Your task to perform on an android device: Open sound settings Image 0: 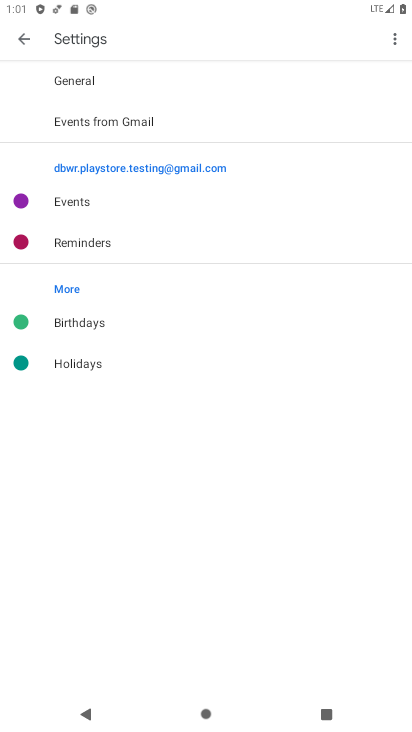
Step 0: press home button
Your task to perform on an android device: Open sound settings Image 1: 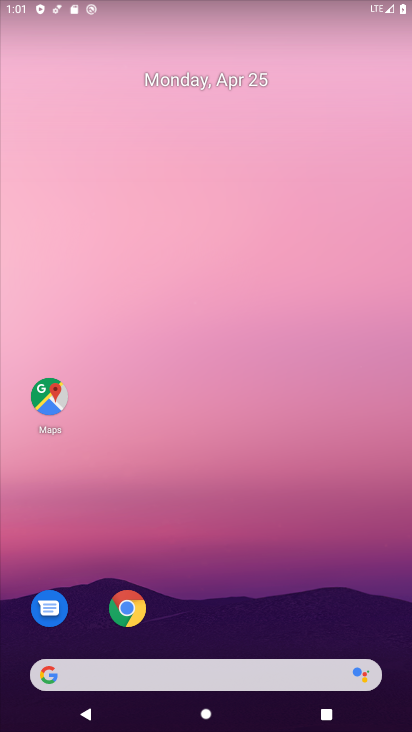
Step 1: drag from (266, 580) to (339, 126)
Your task to perform on an android device: Open sound settings Image 2: 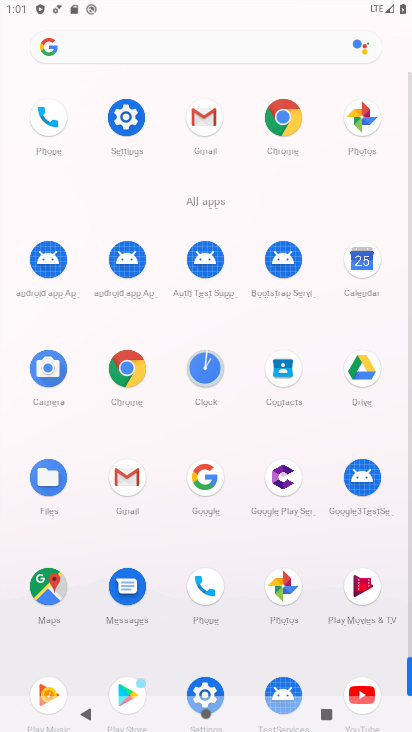
Step 2: click (130, 110)
Your task to perform on an android device: Open sound settings Image 3: 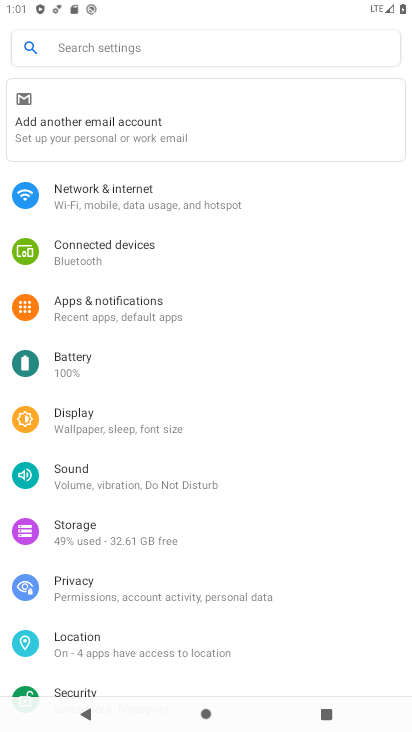
Step 3: click (142, 466)
Your task to perform on an android device: Open sound settings Image 4: 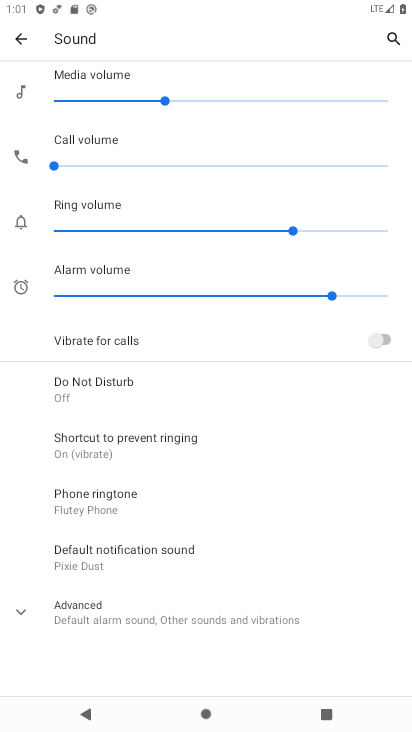
Step 4: task complete